Your task to perform on an android device: delete location history Image 0: 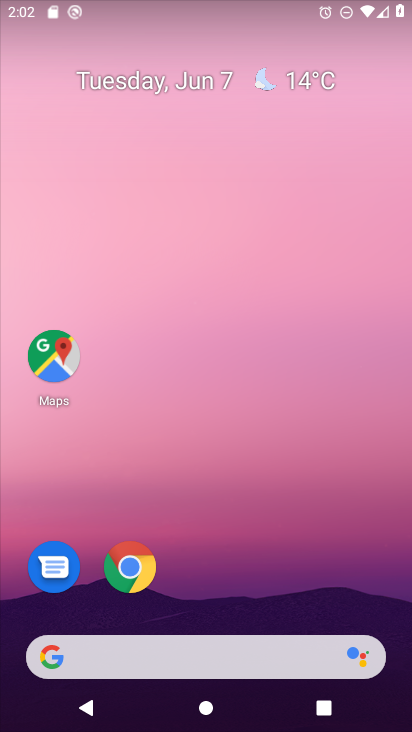
Step 0: drag from (291, 570) to (163, 3)
Your task to perform on an android device: delete location history Image 1: 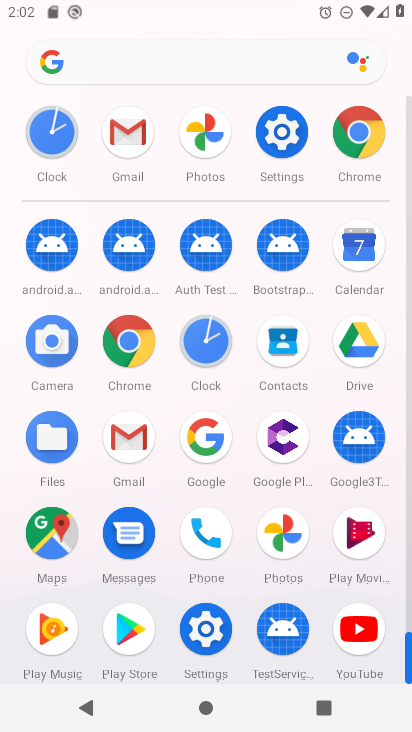
Step 1: click (55, 541)
Your task to perform on an android device: delete location history Image 2: 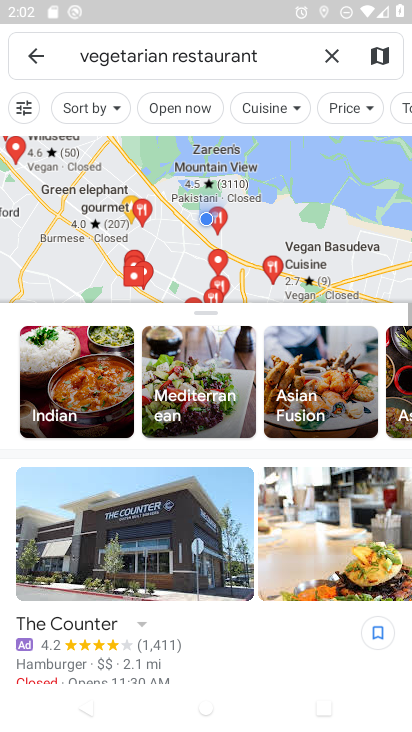
Step 2: click (46, 54)
Your task to perform on an android device: delete location history Image 3: 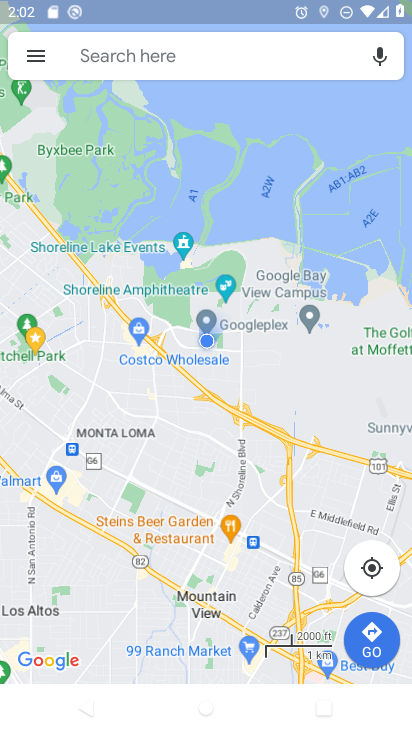
Step 3: click (46, 54)
Your task to perform on an android device: delete location history Image 4: 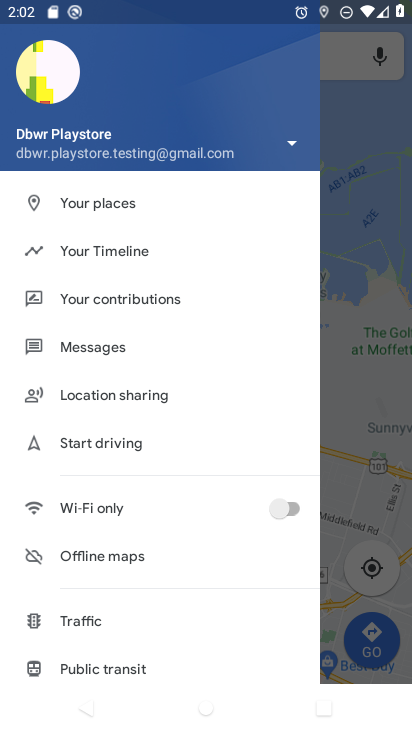
Step 4: click (117, 260)
Your task to perform on an android device: delete location history Image 5: 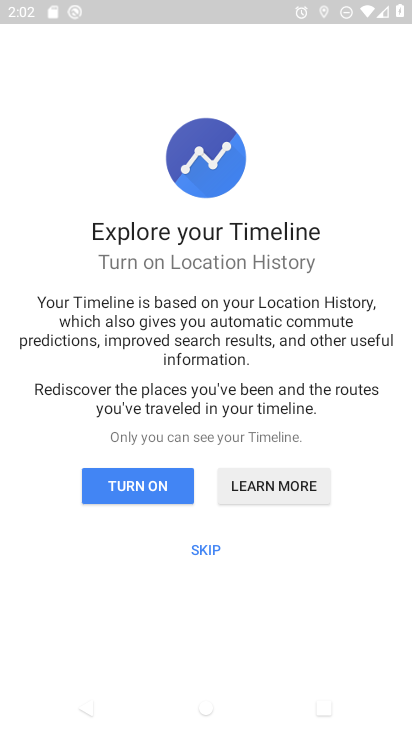
Step 5: click (195, 547)
Your task to perform on an android device: delete location history Image 6: 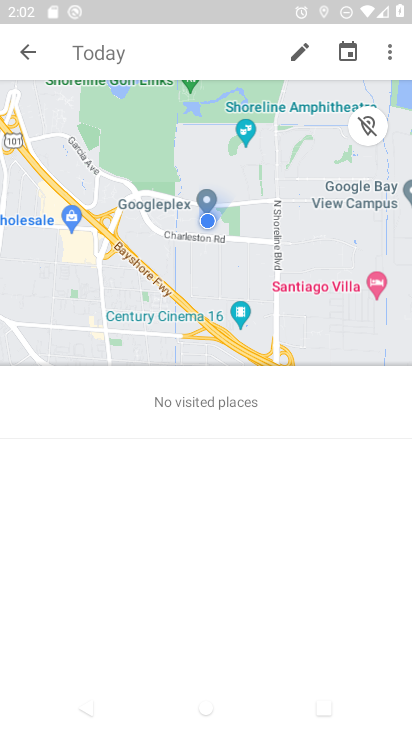
Step 6: click (385, 55)
Your task to perform on an android device: delete location history Image 7: 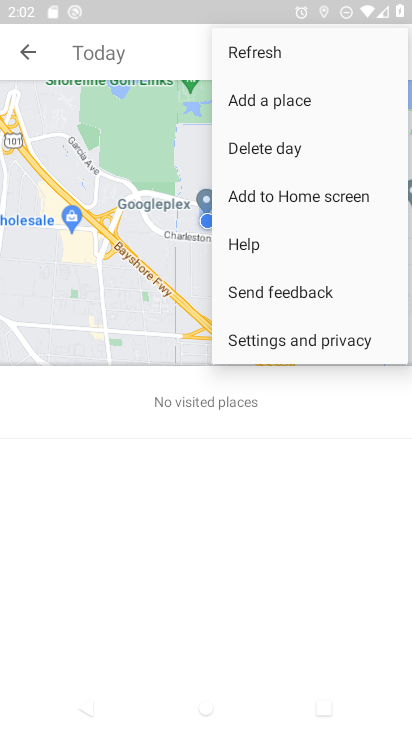
Step 7: click (348, 359)
Your task to perform on an android device: delete location history Image 8: 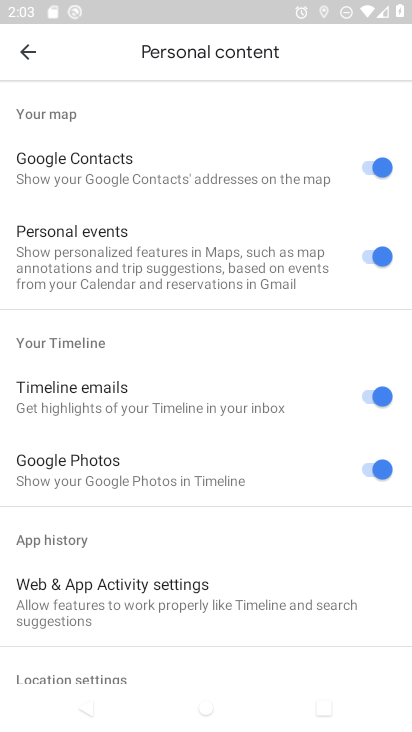
Step 8: drag from (144, 591) to (94, 128)
Your task to perform on an android device: delete location history Image 9: 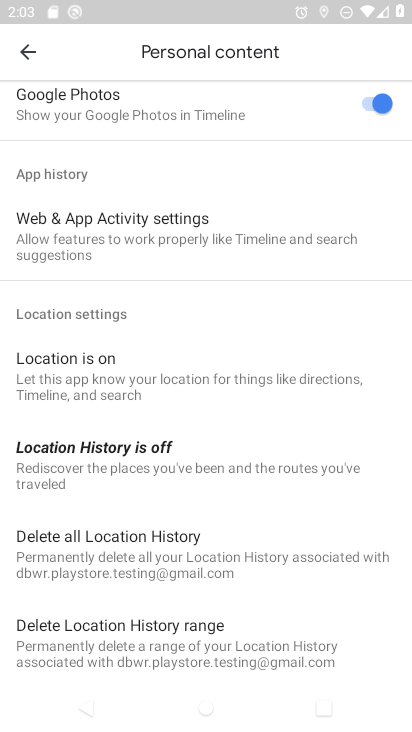
Step 9: click (89, 554)
Your task to perform on an android device: delete location history Image 10: 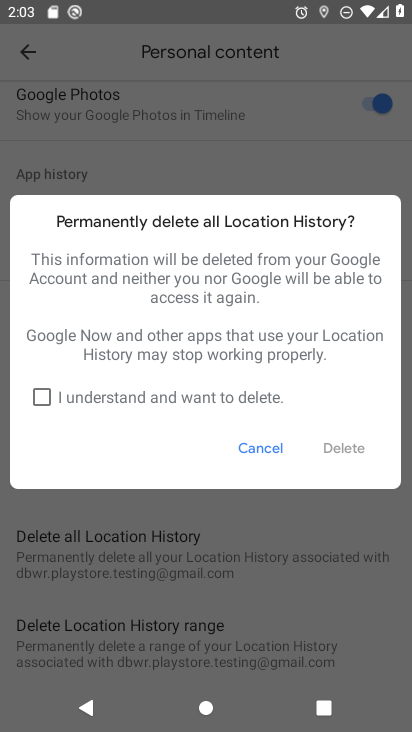
Step 10: click (39, 412)
Your task to perform on an android device: delete location history Image 11: 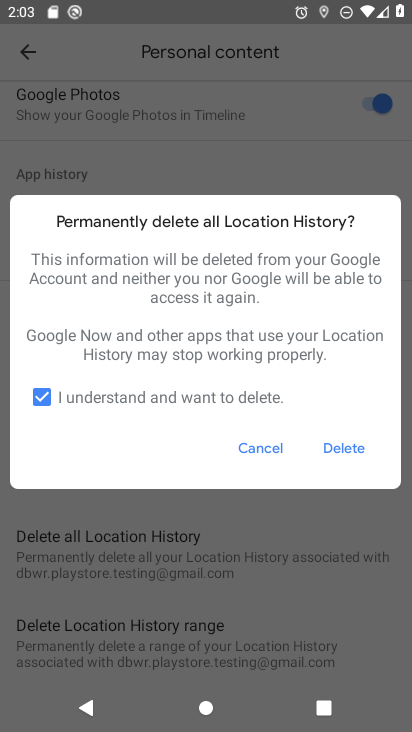
Step 11: click (361, 458)
Your task to perform on an android device: delete location history Image 12: 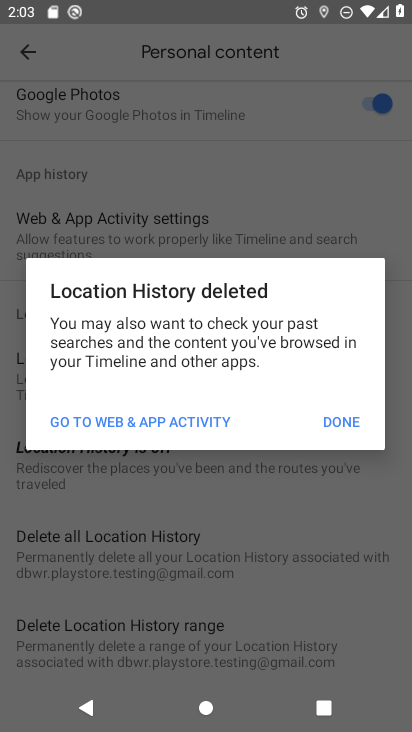
Step 12: click (351, 427)
Your task to perform on an android device: delete location history Image 13: 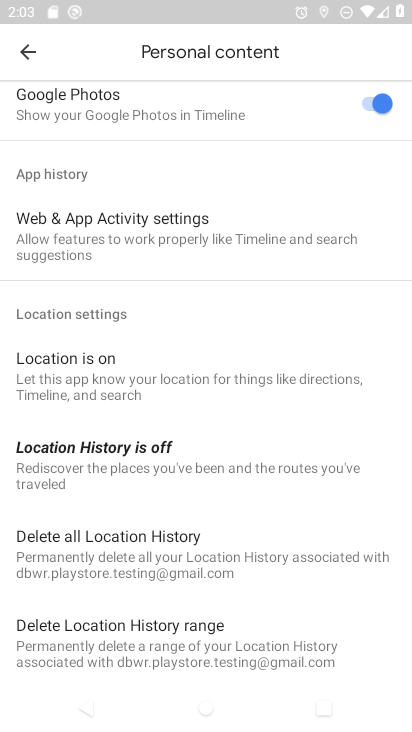
Step 13: task complete